Your task to perform on an android device: turn on airplane mode Image 0: 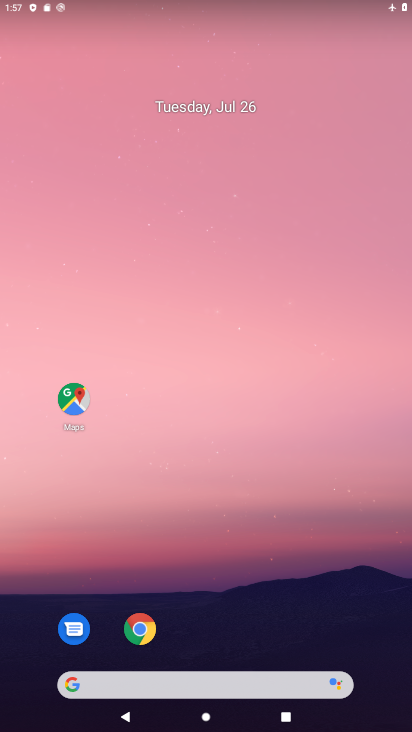
Step 0: drag from (227, 664) to (236, 55)
Your task to perform on an android device: turn on airplane mode Image 1: 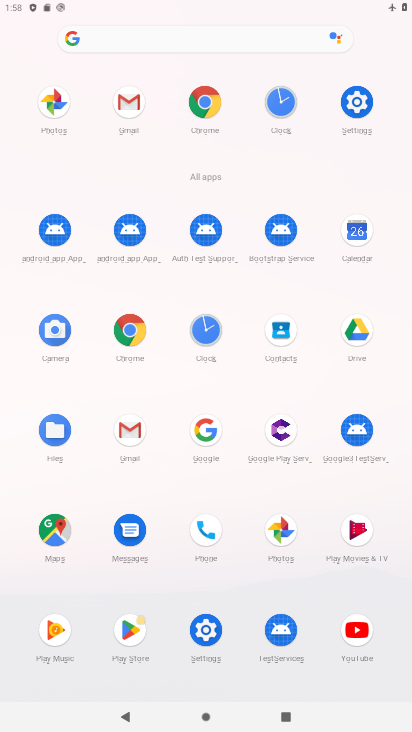
Step 1: click (361, 107)
Your task to perform on an android device: turn on airplane mode Image 2: 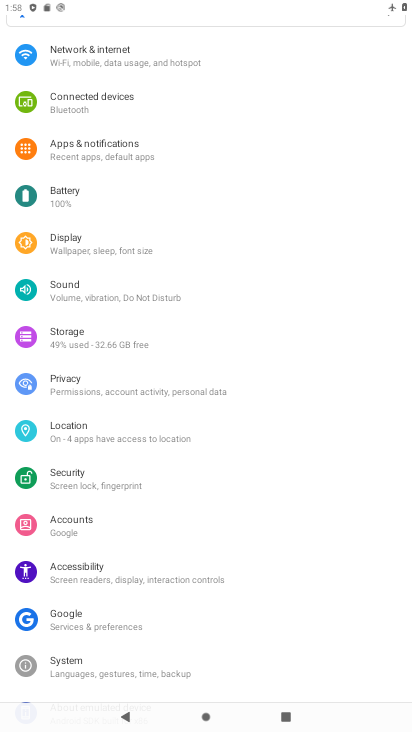
Step 2: click (55, 50)
Your task to perform on an android device: turn on airplane mode Image 3: 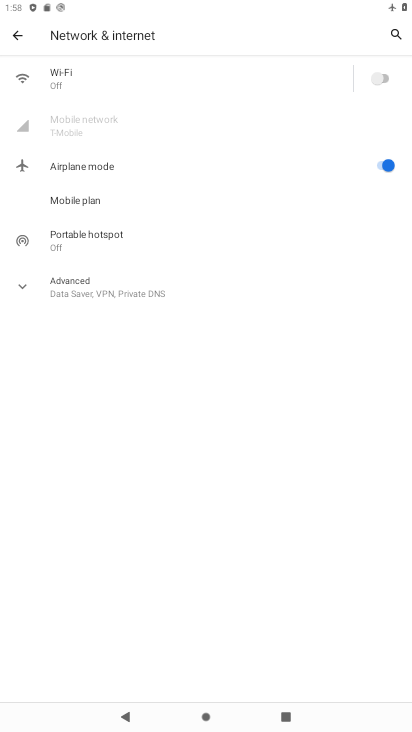
Step 3: task complete